Your task to perform on an android device: Go to calendar. Show me events next week Image 0: 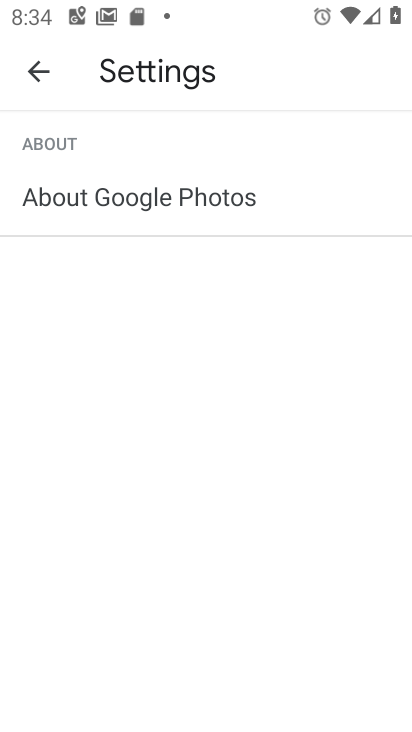
Step 0: press home button
Your task to perform on an android device: Go to calendar. Show me events next week Image 1: 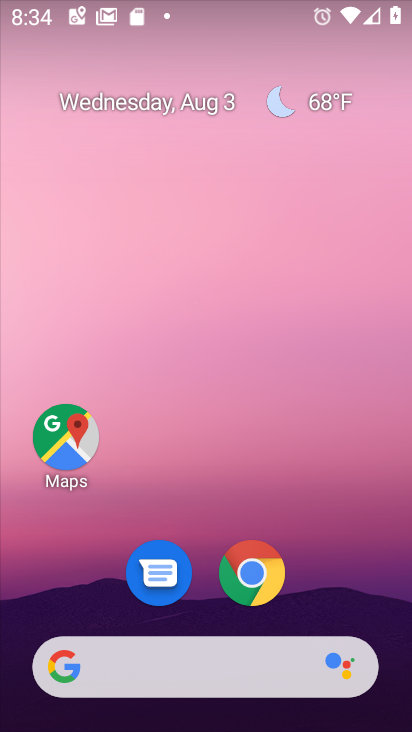
Step 1: drag from (331, 633) to (304, 0)
Your task to perform on an android device: Go to calendar. Show me events next week Image 2: 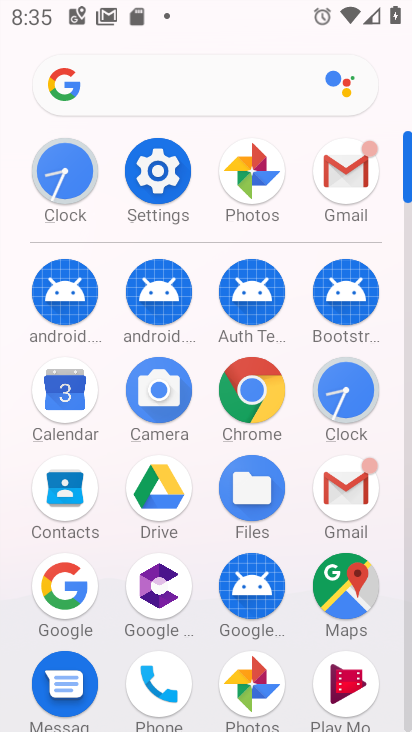
Step 2: click (56, 393)
Your task to perform on an android device: Go to calendar. Show me events next week Image 3: 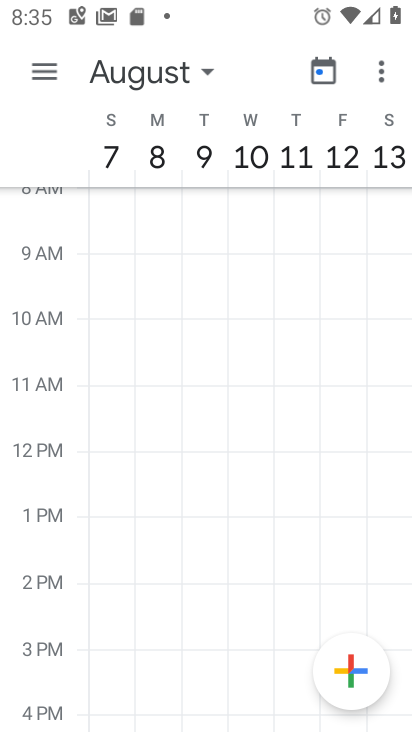
Step 3: click (44, 70)
Your task to perform on an android device: Go to calendar. Show me events next week Image 4: 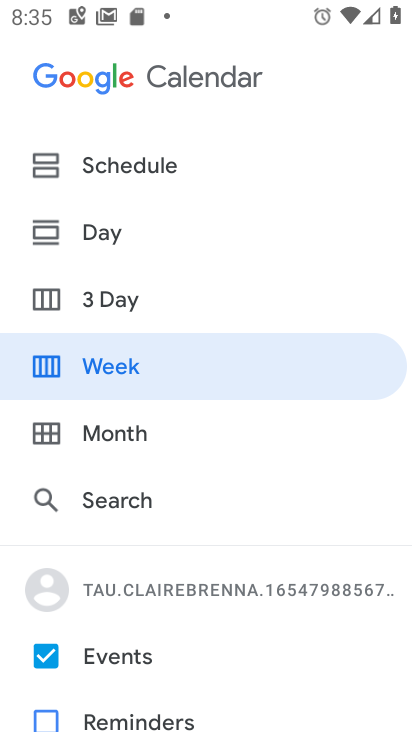
Step 4: click (58, 372)
Your task to perform on an android device: Go to calendar. Show me events next week Image 5: 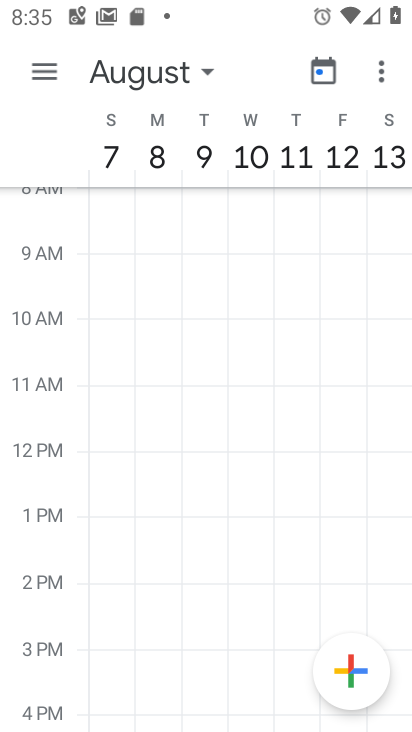
Step 5: task complete